Your task to perform on an android device: change alarm snooze length Image 0: 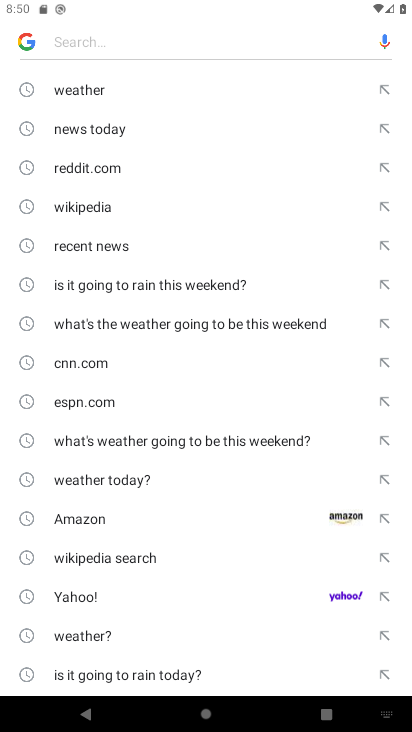
Step 0: press home button
Your task to perform on an android device: change alarm snooze length Image 1: 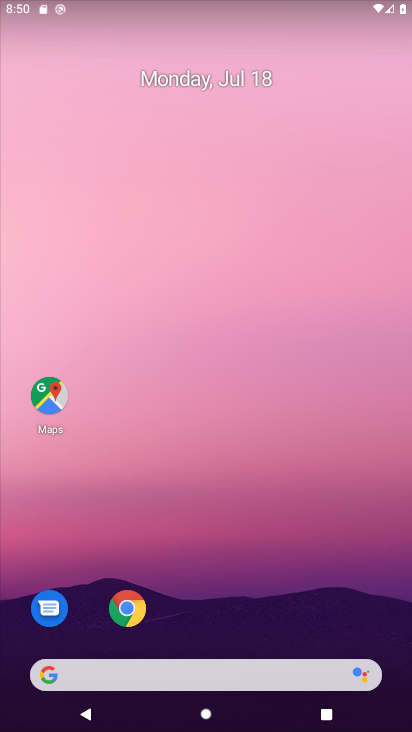
Step 1: drag from (182, 675) to (249, 157)
Your task to perform on an android device: change alarm snooze length Image 2: 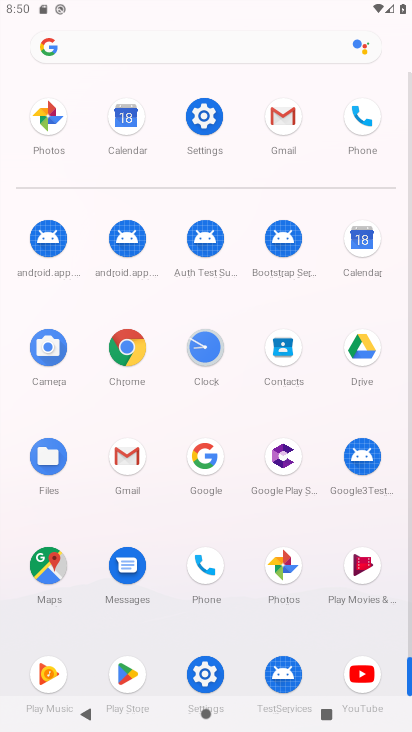
Step 2: click (207, 349)
Your task to perform on an android device: change alarm snooze length Image 3: 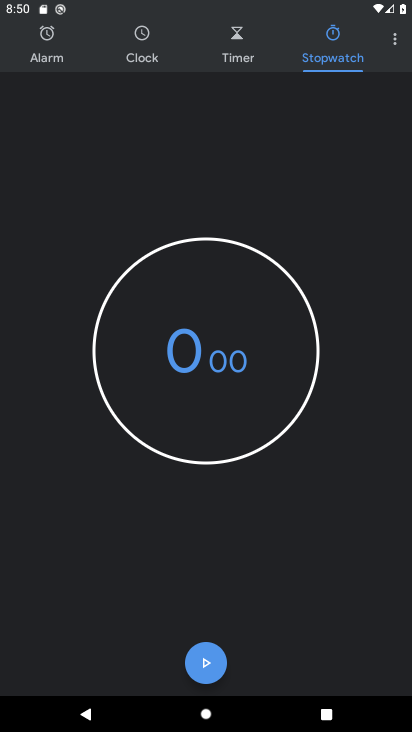
Step 3: click (397, 44)
Your task to perform on an android device: change alarm snooze length Image 4: 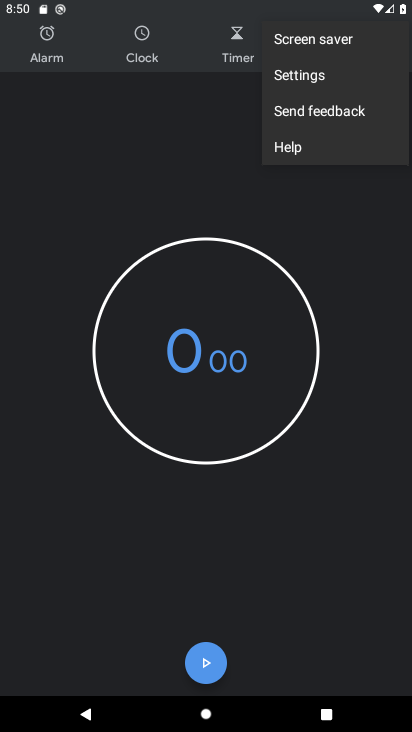
Step 4: click (315, 81)
Your task to perform on an android device: change alarm snooze length Image 5: 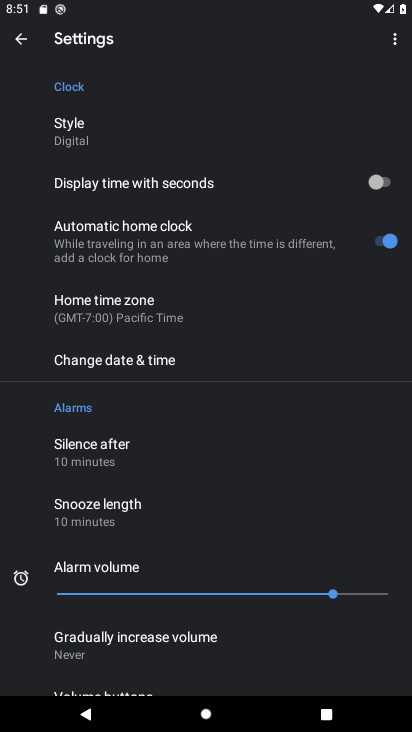
Step 5: drag from (163, 534) to (203, 431)
Your task to perform on an android device: change alarm snooze length Image 6: 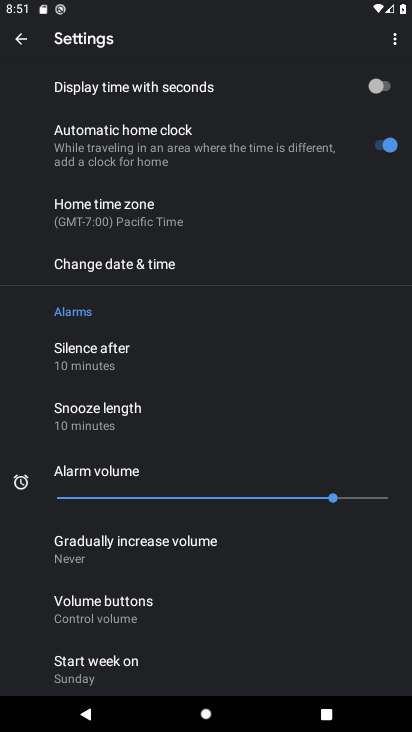
Step 6: click (143, 410)
Your task to perform on an android device: change alarm snooze length Image 7: 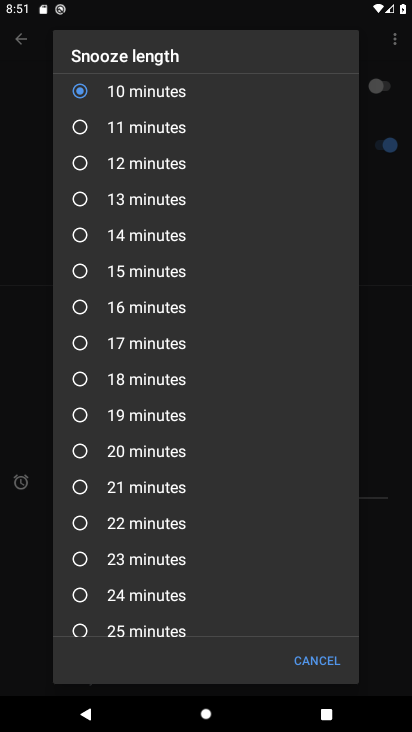
Step 7: drag from (140, 484) to (159, 340)
Your task to perform on an android device: change alarm snooze length Image 8: 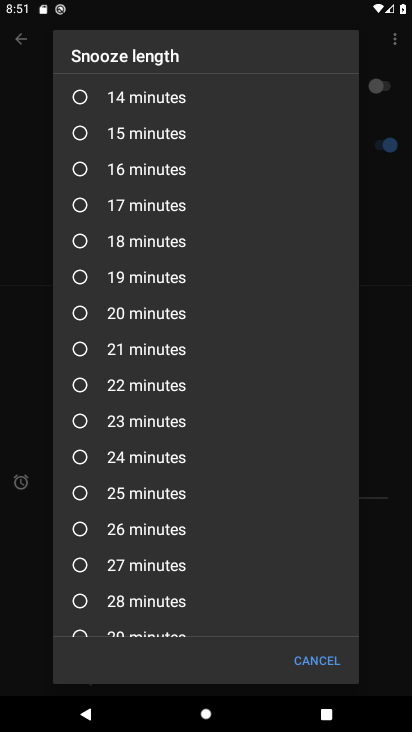
Step 8: click (83, 570)
Your task to perform on an android device: change alarm snooze length Image 9: 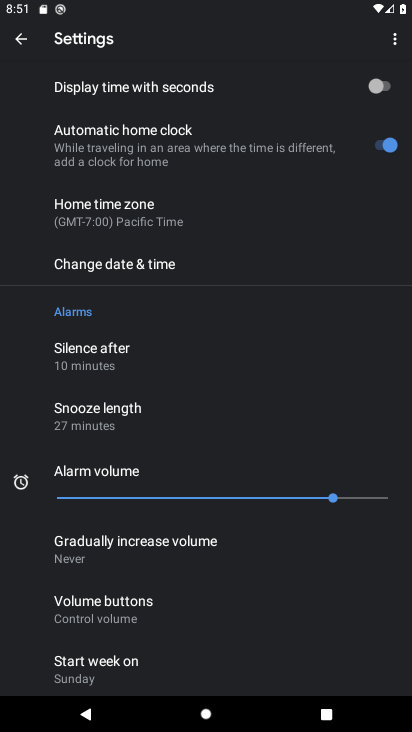
Step 9: task complete